Your task to perform on an android device: Go to battery settings Image 0: 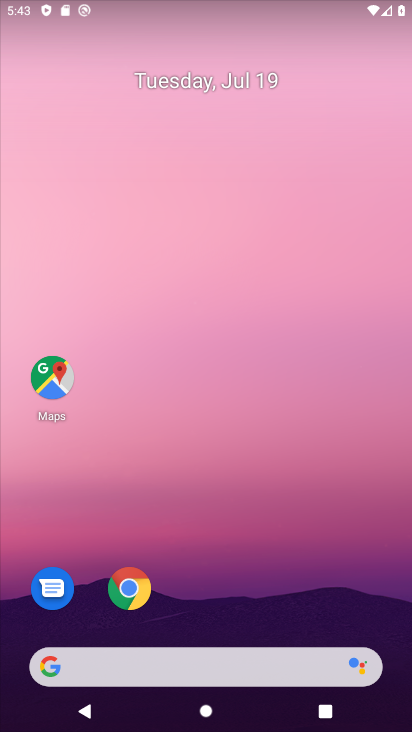
Step 0: drag from (188, 144) to (233, 503)
Your task to perform on an android device: Go to battery settings Image 1: 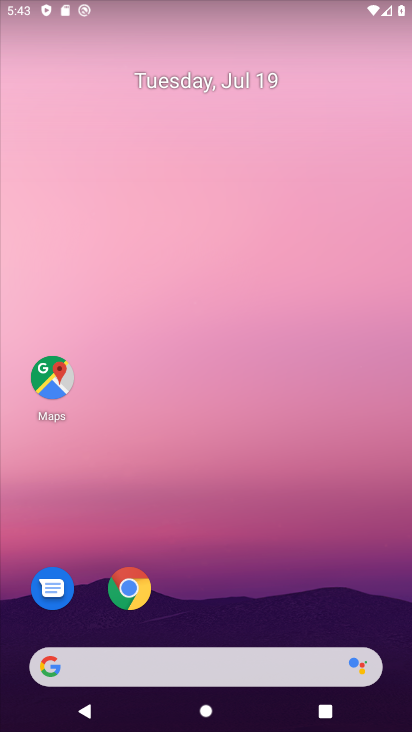
Step 1: drag from (318, 9) to (265, 542)
Your task to perform on an android device: Go to battery settings Image 2: 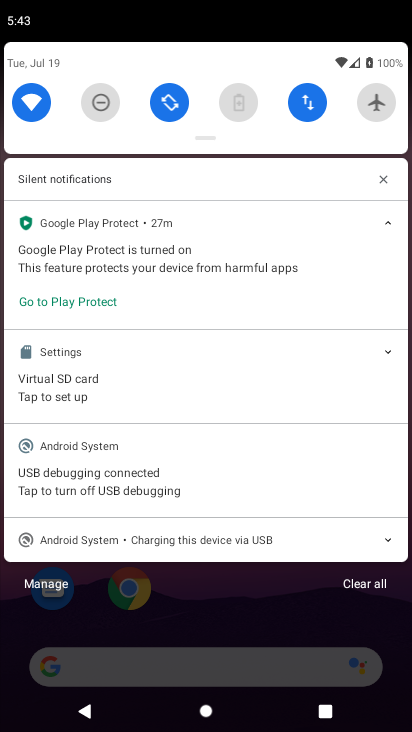
Step 2: click (240, 93)
Your task to perform on an android device: Go to battery settings Image 3: 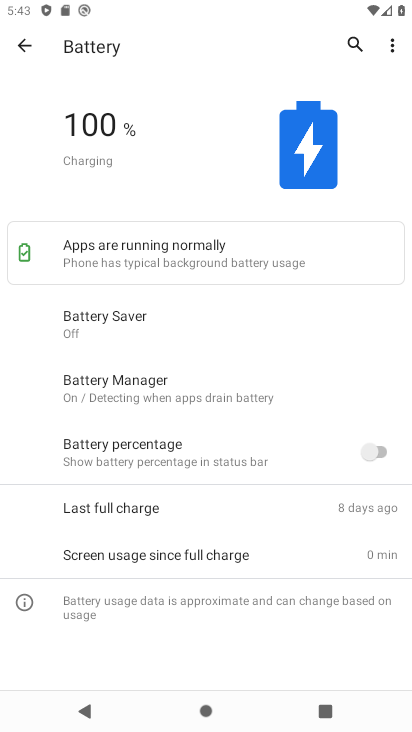
Step 3: task complete